Your task to perform on an android device: Go to wifi settings Image 0: 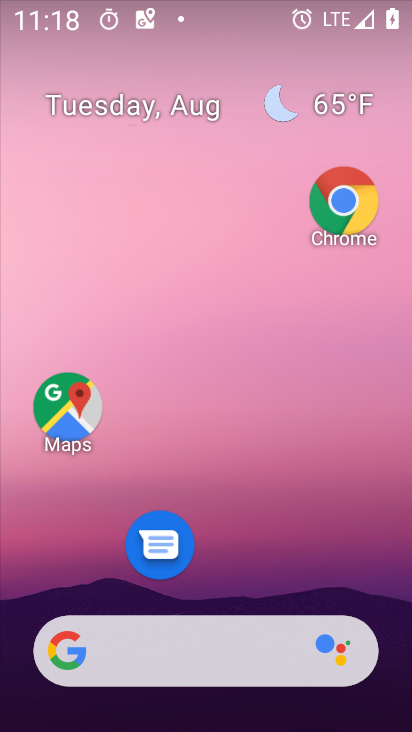
Step 0: drag from (172, 602) to (239, 72)
Your task to perform on an android device: Go to wifi settings Image 1: 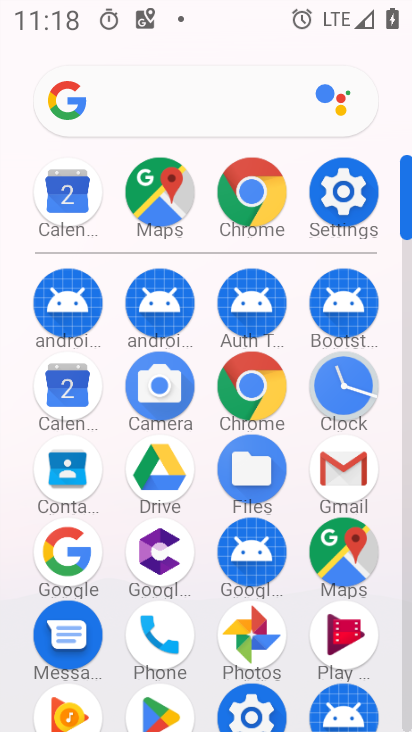
Step 1: click (345, 206)
Your task to perform on an android device: Go to wifi settings Image 2: 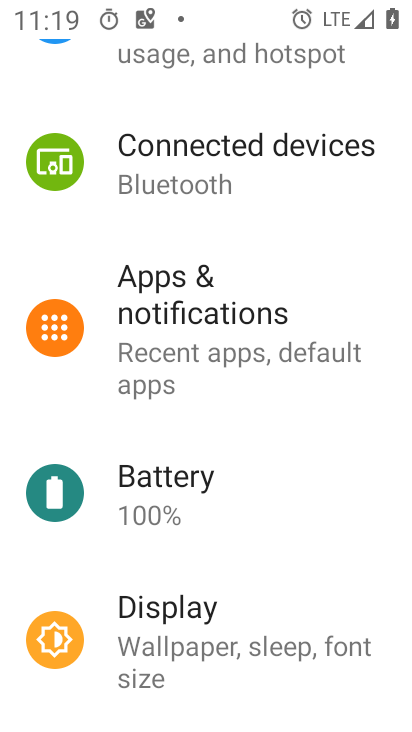
Step 2: drag from (233, 326) to (191, 628)
Your task to perform on an android device: Go to wifi settings Image 3: 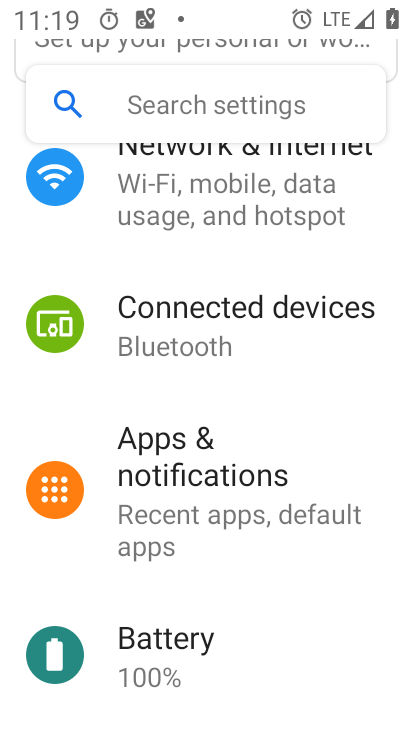
Step 3: drag from (205, 337) to (178, 684)
Your task to perform on an android device: Go to wifi settings Image 4: 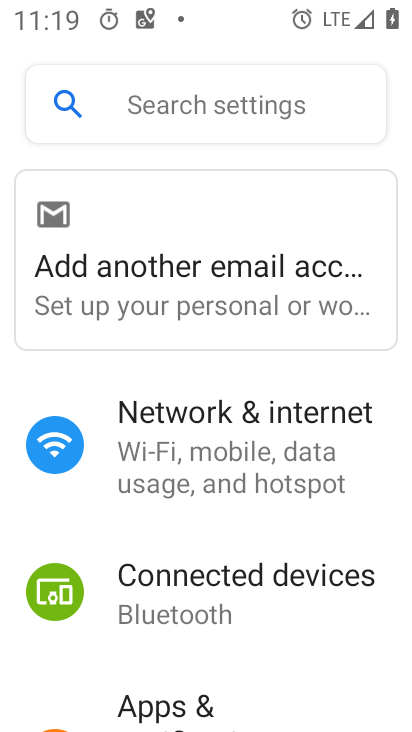
Step 4: click (179, 449)
Your task to perform on an android device: Go to wifi settings Image 5: 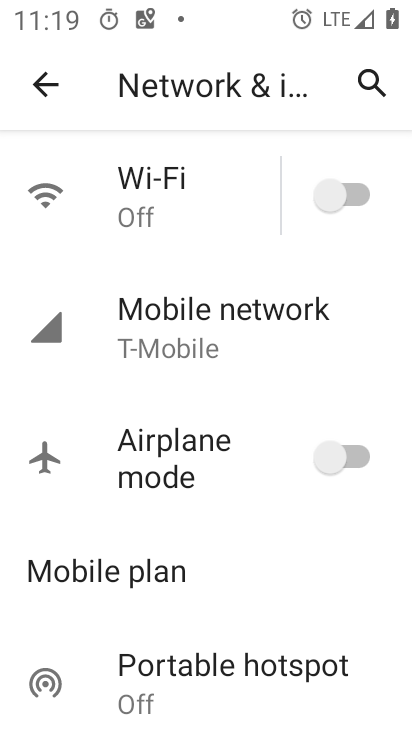
Step 5: click (147, 213)
Your task to perform on an android device: Go to wifi settings Image 6: 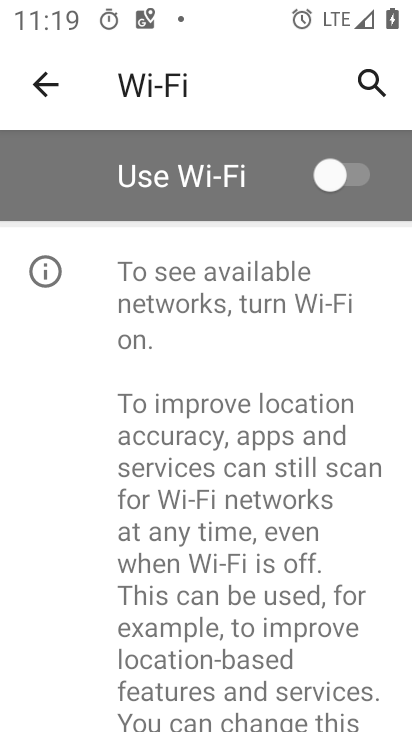
Step 6: task complete